Your task to perform on an android device: turn on showing notifications on the lock screen Image 0: 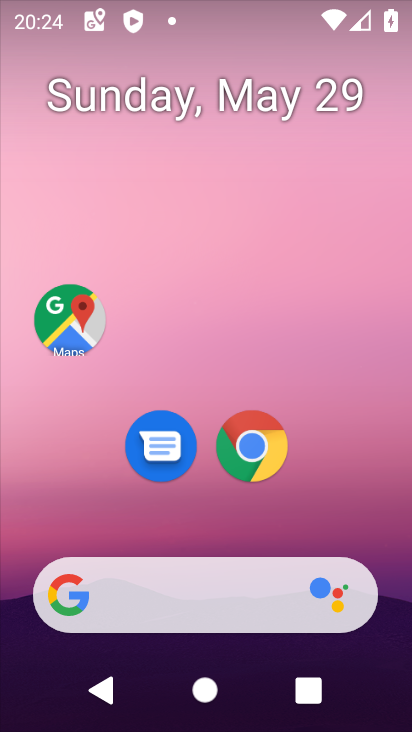
Step 0: drag from (234, 593) to (297, 105)
Your task to perform on an android device: turn on showing notifications on the lock screen Image 1: 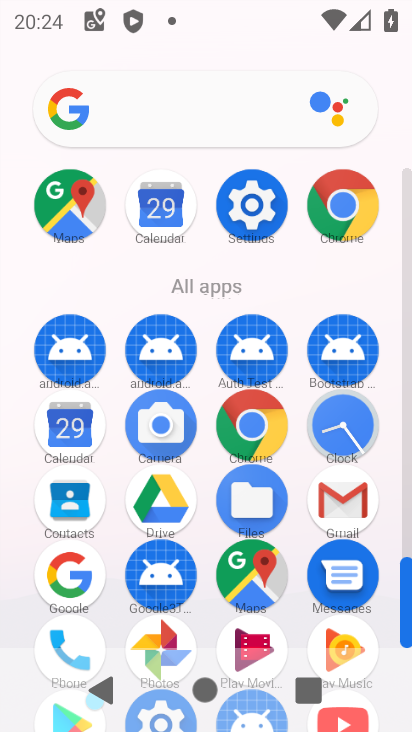
Step 1: click (241, 201)
Your task to perform on an android device: turn on showing notifications on the lock screen Image 2: 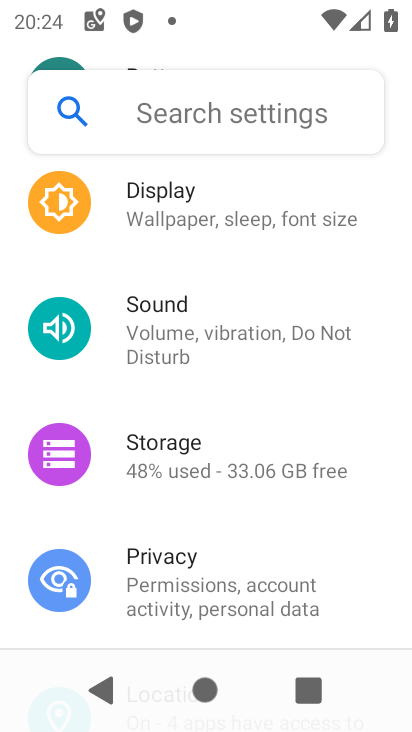
Step 2: drag from (201, 268) to (217, 709)
Your task to perform on an android device: turn on showing notifications on the lock screen Image 3: 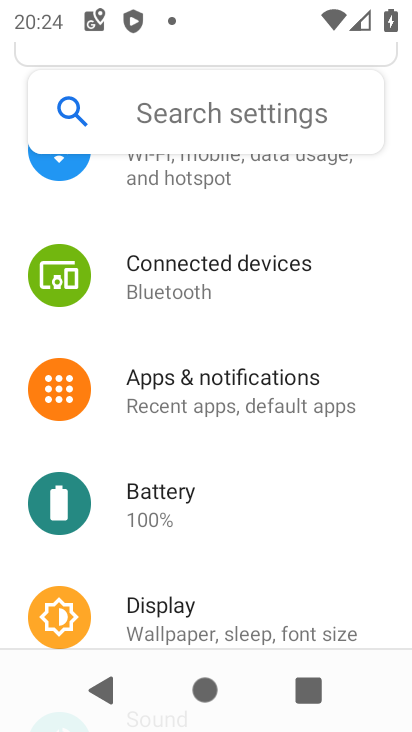
Step 3: click (216, 395)
Your task to perform on an android device: turn on showing notifications on the lock screen Image 4: 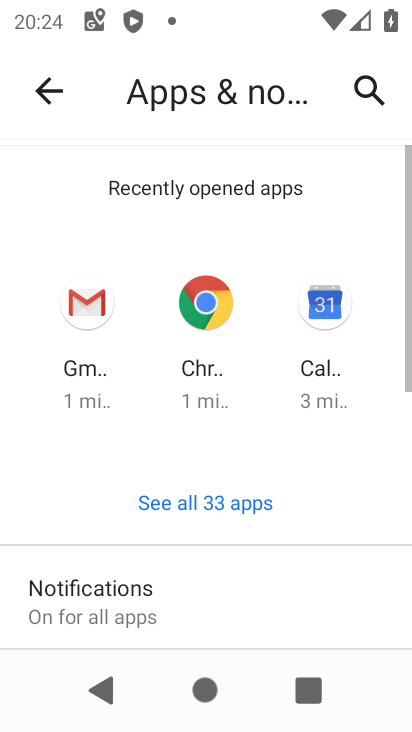
Step 4: click (223, 600)
Your task to perform on an android device: turn on showing notifications on the lock screen Image 5: 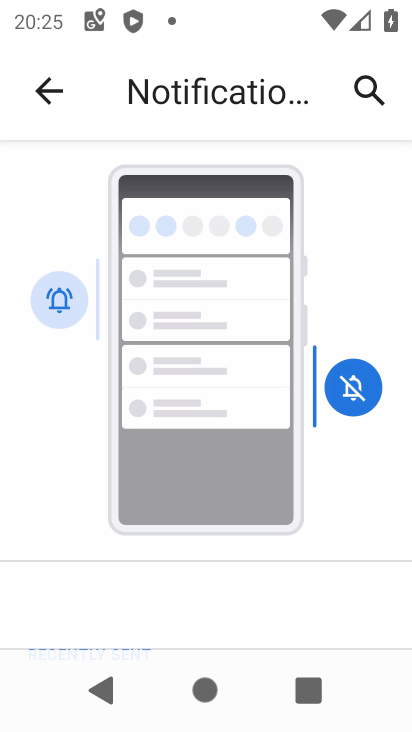
Step 5: drag from (209, 619) to (231, 178)
Your task to perform on an android device: turn on showing notifications on the lock screen Image 6: 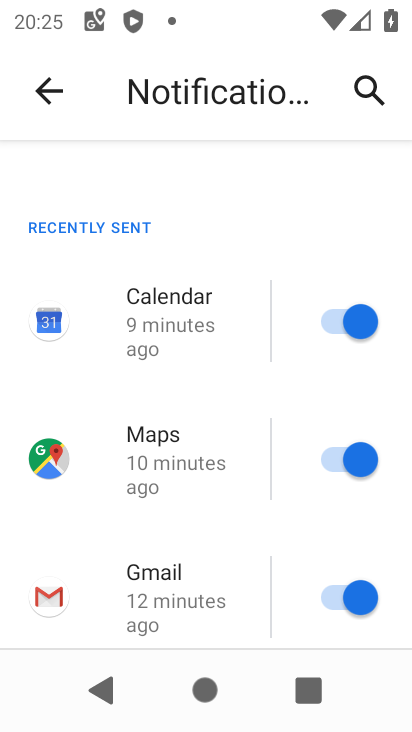
Step 6: drag from (207, 569) to (208, 3)
Your task to perform on an android device: turn on showing notifications on the lock screen Image 7: 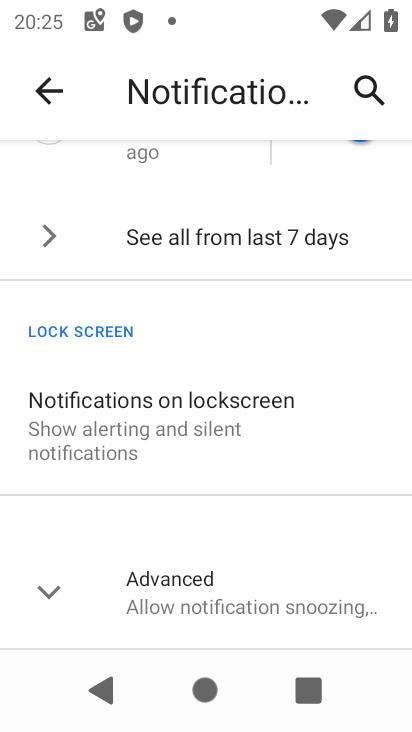
Step 7: click (185, 441)
Your task to perform on an android device: turn on showing notifications on the lock screen Image 8: 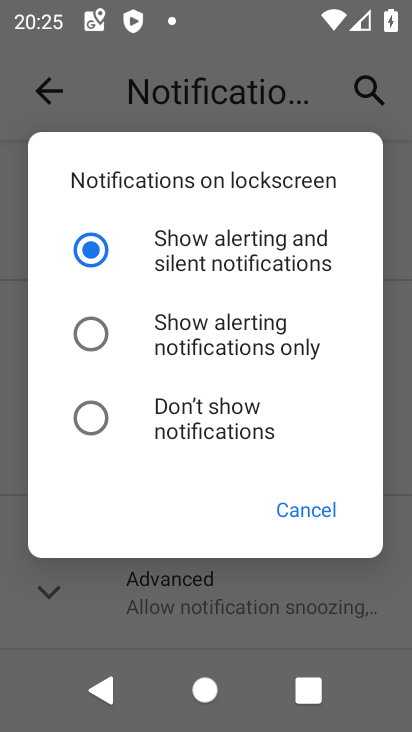
Step 8: click (189, 354)
Your task to perform on an android device: turn on showing notifications on the lock screen Image 9: 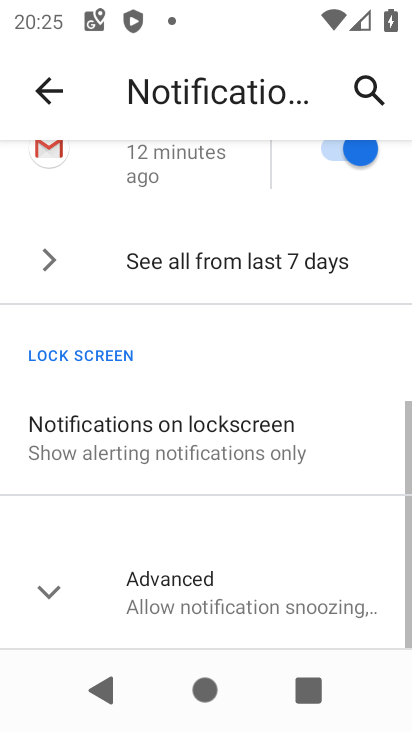
Step 9: task complete